Your task to perform on an android device: Open accessibility settings Image 0: 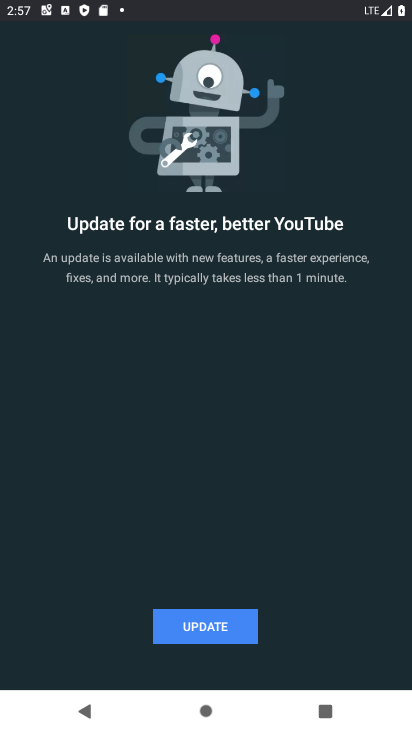
Step 0: press home button
Your task to perform on an android device: Open accessibility settings Image 1: 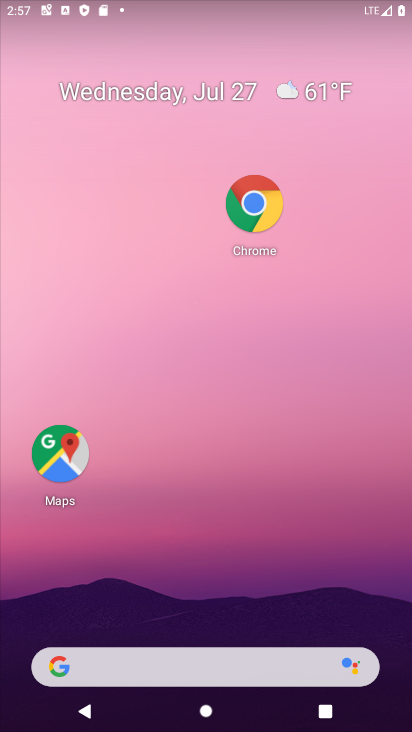
Step 1: drag from (177, 515) to (273, 0)
Your task to perform on an android device: Open accessibility settings Image 2: 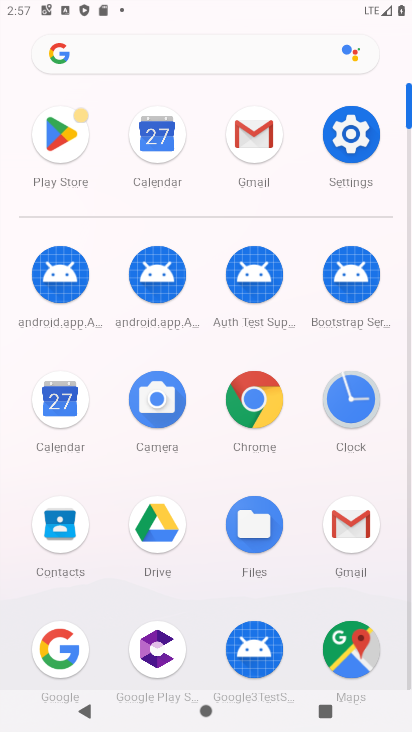
Step 2: click (354, 158)
Your task to perform on an android device: Open accessibility settings Image 3: 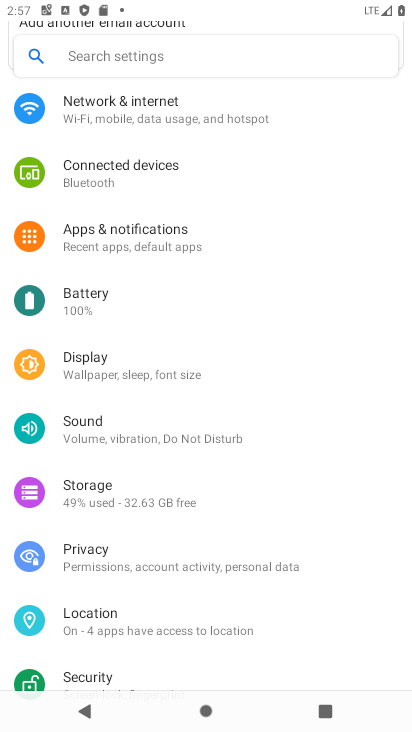
Step 3: drag from (152, 555) to (249, 80)
Your task to perform on an android device: Open accessibility settings Image 4: 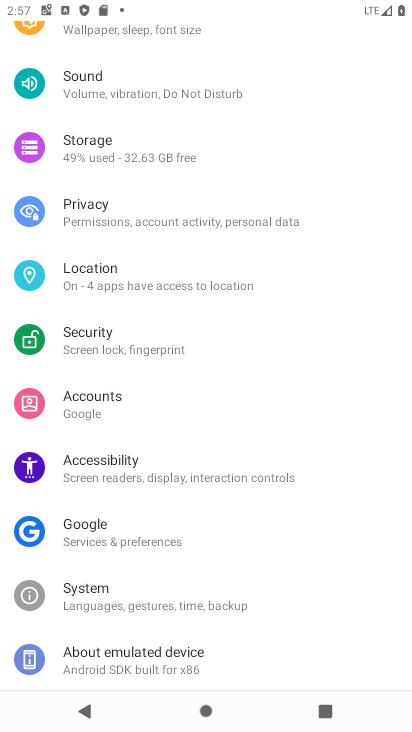
Step 4: click (141, 450)
Your task to perform on an android device: Open accessibility settings Image 5: 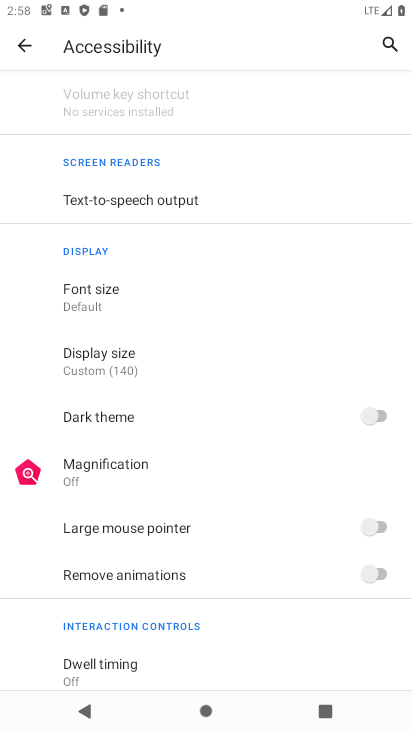
Step 5: task complete